Your task to perform on an android device: What's the weather going to be tomorrow? Image 0: 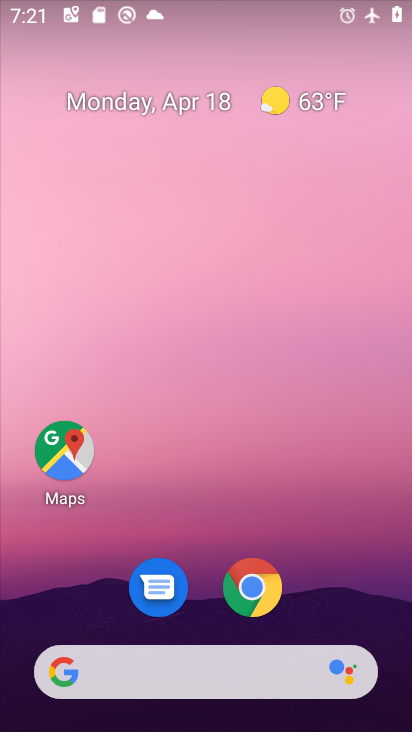
Step 0: click (244, 671)
Your task to perform on an android device: What's the weather going to be tomorrow? Image 1: 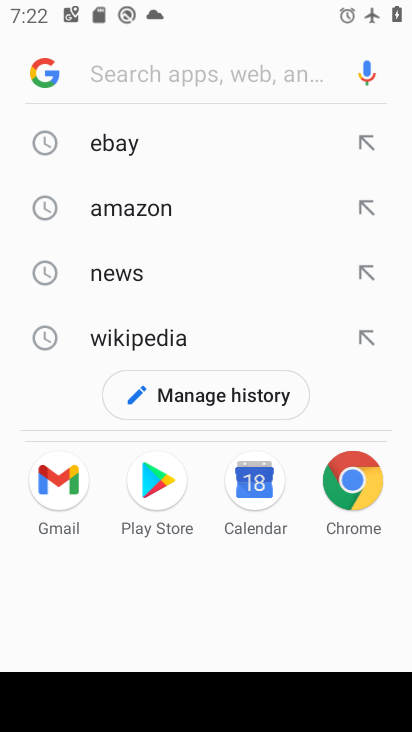
Step 1: type "weather"
Your task to perform on an android device: What's the weather going to be tomorrow? Image 2: 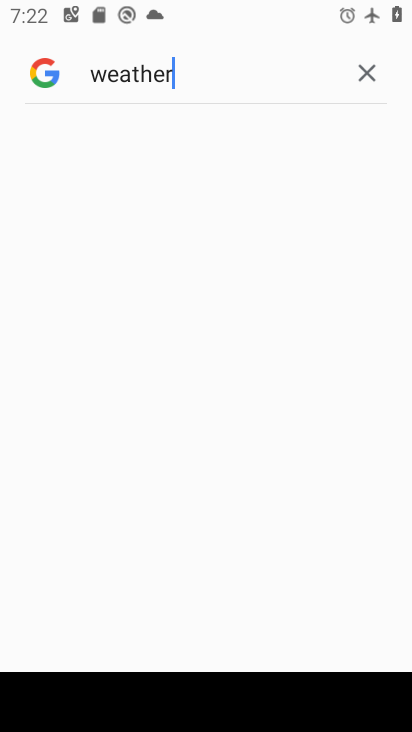
Step 2: task complete